Your task to perform on an android device: Check the news Image 0: 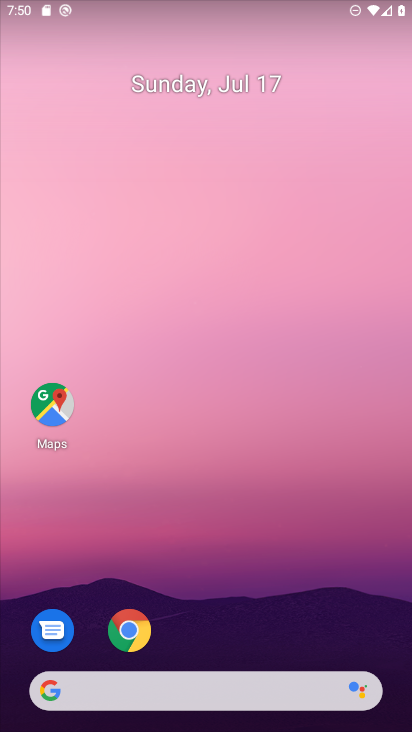
Step 0: click (135, 648)
Your task to perform on an android device: Check the news Image 1: 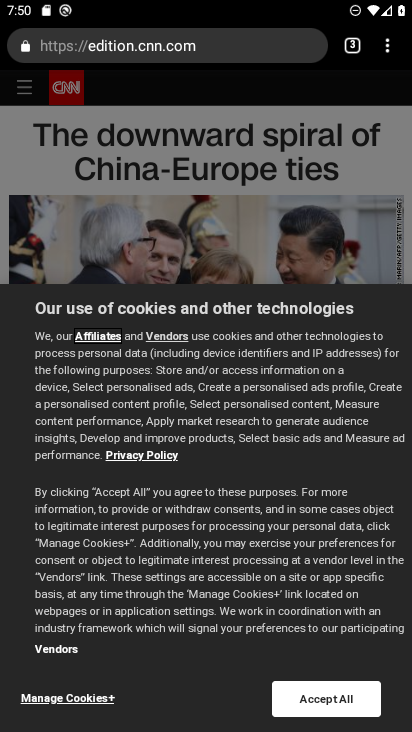
Step 1: click (386, 51)
Your task to perform on an android device: Check the news Image 2: 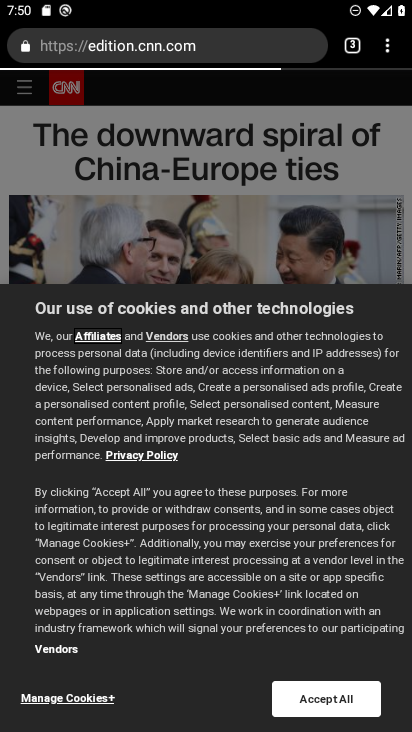
Step 2: click (405, 45)
Your task to perform on an android device: Check the news Image 3: 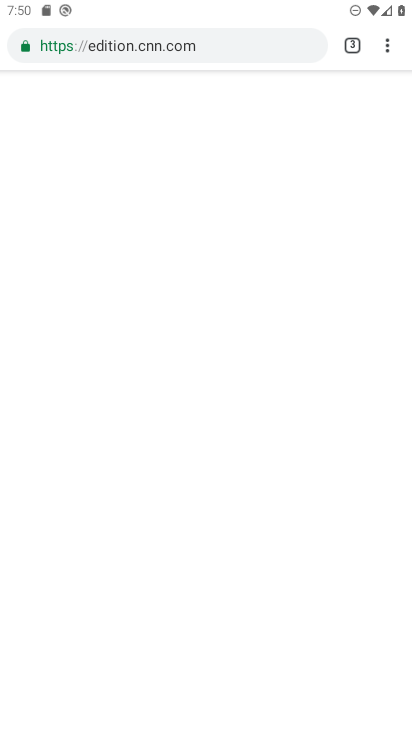
Step 3: click (396, 45)
Your task to perform on an android device: Check the news Image 4: 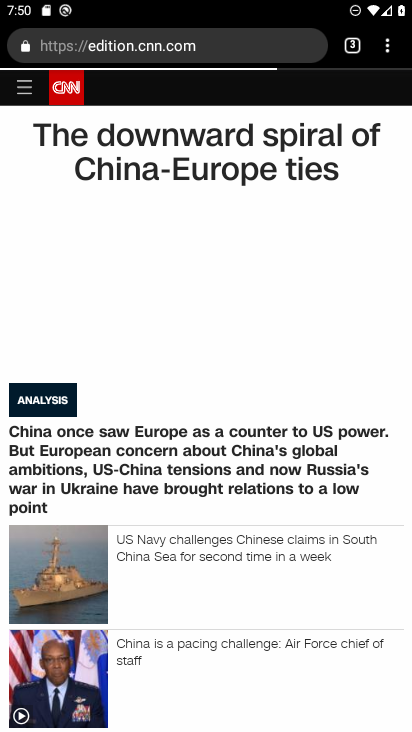
Step 4: click (375, 43)
Your task to perform on an android device: Check the news Image 5: 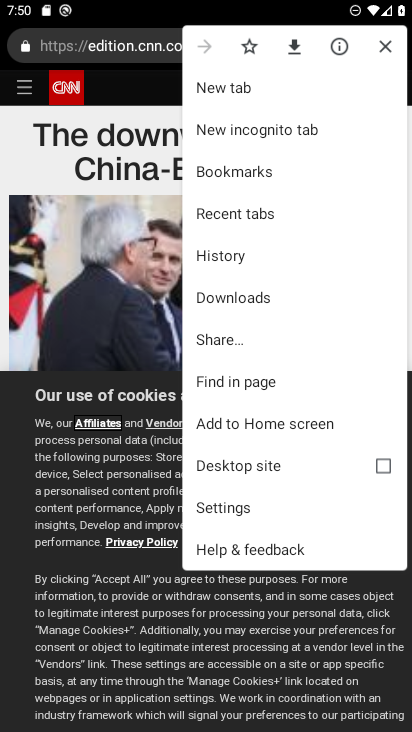
Step 5: click (262, 89)
Your task to perform on an android device: Check the news Image 6: 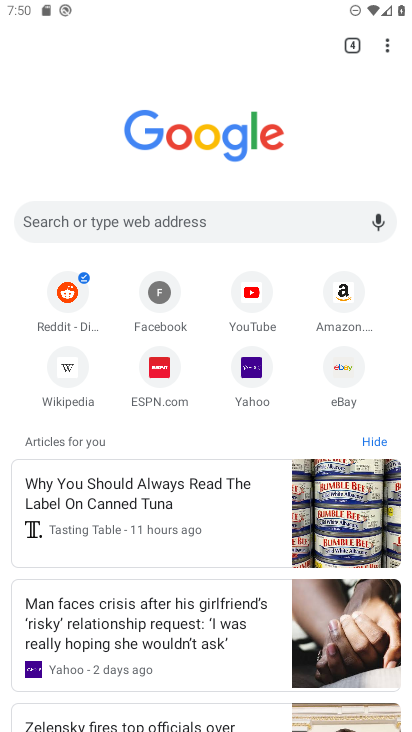
Step 6: click (168, 218)
Your task to perform on an android device: Check the news Image 7: 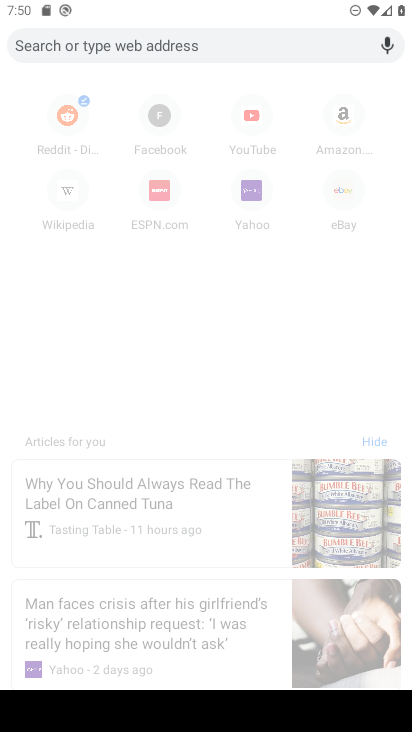
Step 7: type "Check the news "
Your task to perform on an android device: Check the news Image 8: 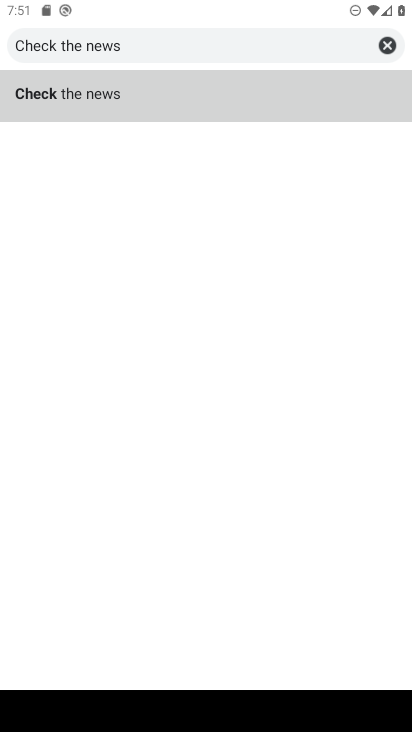
Step 8: click (265, 90)
Your task to perform on an android device: Check the news Image 9: 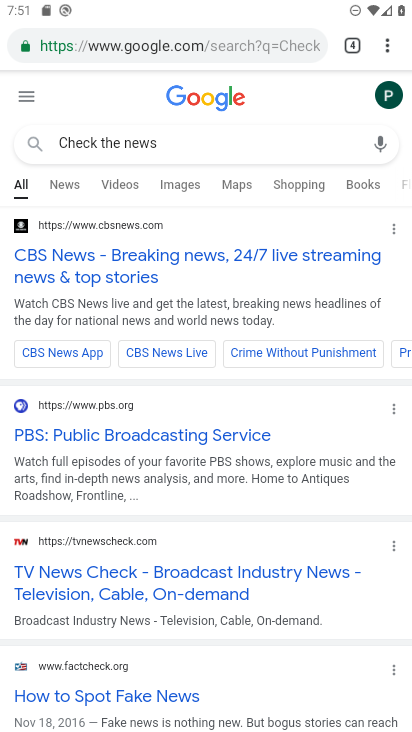
Step 9: task complete